Your task to perform on an android device: toggle pop-ups in chrome Image 0: 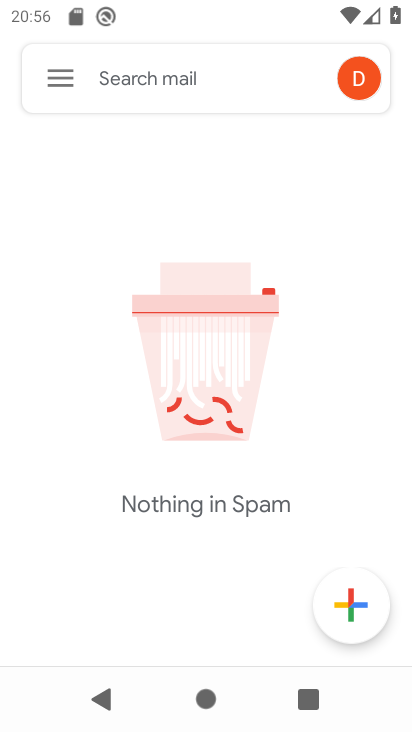
Step 0: drag from (239, 575) to (250, 191)
Your task to perform on an android device: toggle pop-ups in chrome Image 1: 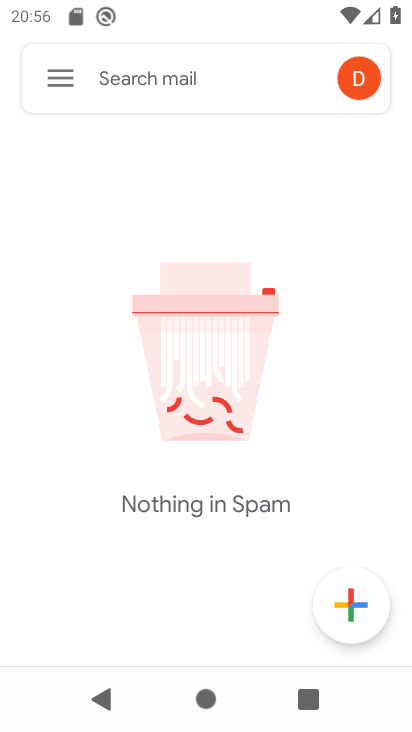
Step 1: press home button
Your task to perform on an android device: toggle pop-ups in chrome Image 2: 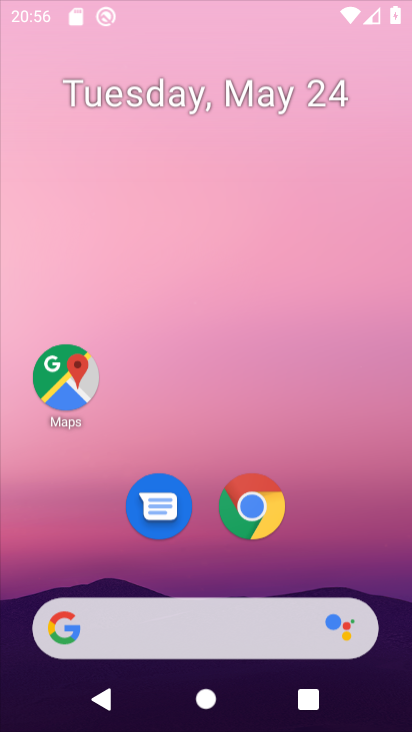
Step 2: drag from (190, 552) to (223, 228)
Your task to perform on an android device: toggle pop-ups in chrome Image 3: 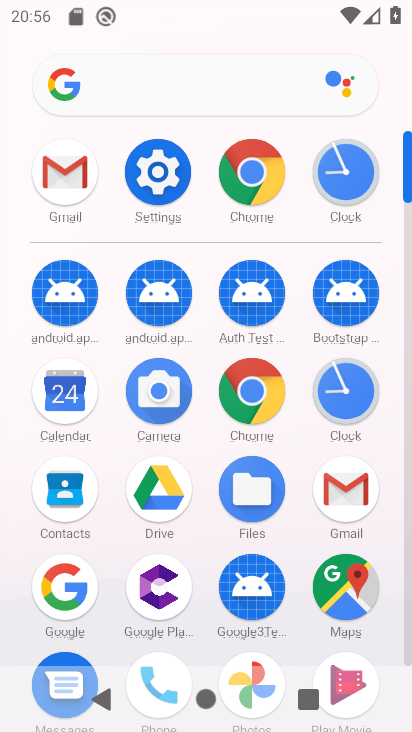
Step 3: click (244, 161)
Your task to perform on an android device: toggle pop-ups in chrome Image 4: 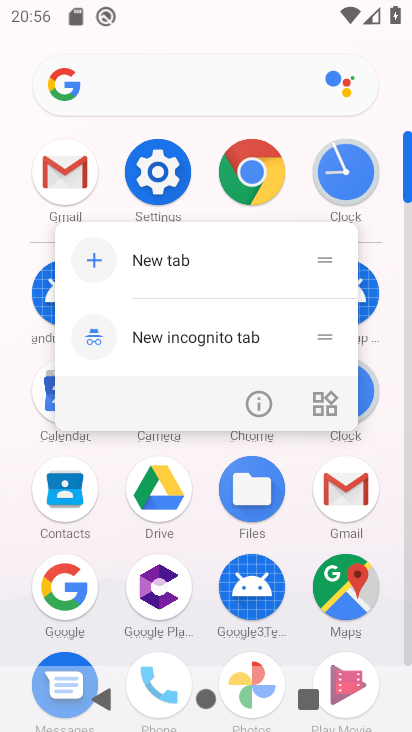
Step 4: click (261, 394)
Your task to perform on an android device: toggle pop-ups in chrome Image 5: 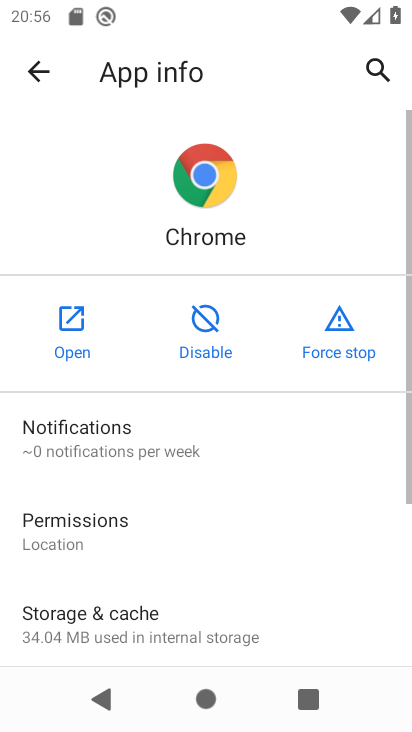
Step 5: click (83, 301)
Your task to perform on an android device: toggle pop-ups in chrome Image 6: 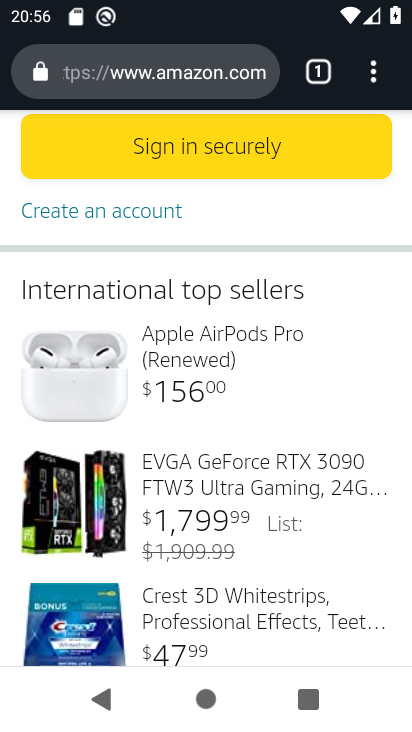
Step 6: drag from (246, 580) to (331, 164)
Your task to perform on an android device: toggle pop-ups in chrome Image 7: 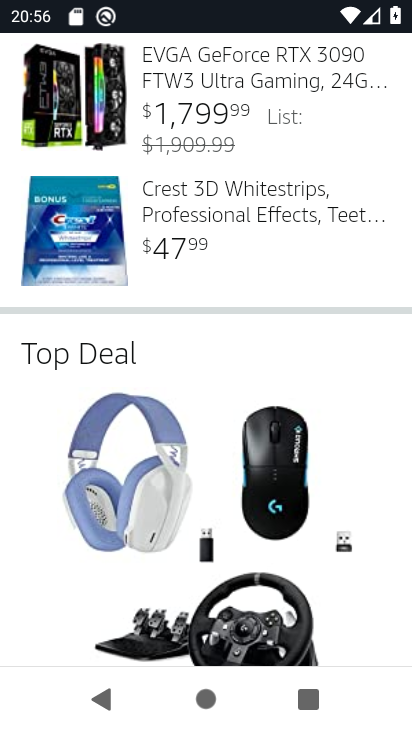
Step 7: drag from (281, 255) to (304, 726)
Your task to perform on an android device: toggle pop-ups in chrome Image 8: 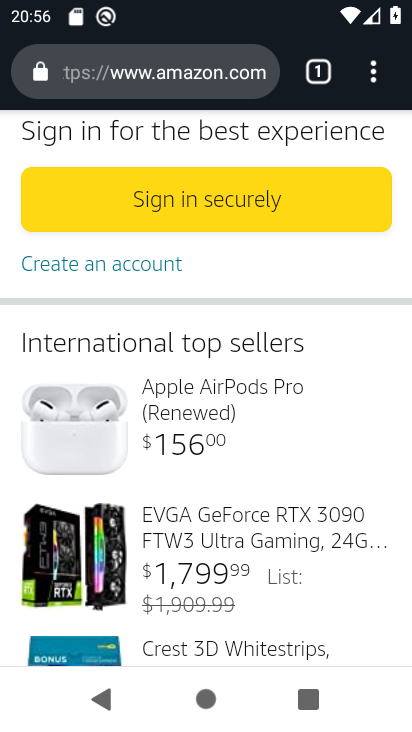
Step 8: click (378, 72)
Your task to perform on an android device: toggle pop-ups in chrome Image 9: 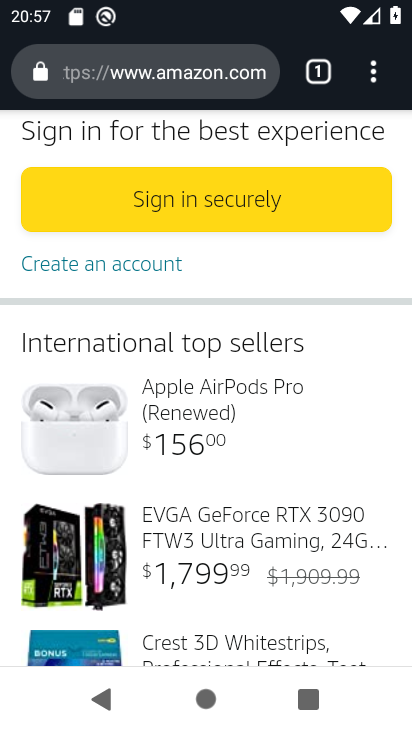
Step 9: click (371, 67)
Your task to perform on an android device: toggle pop-ups in chrome Image 10: 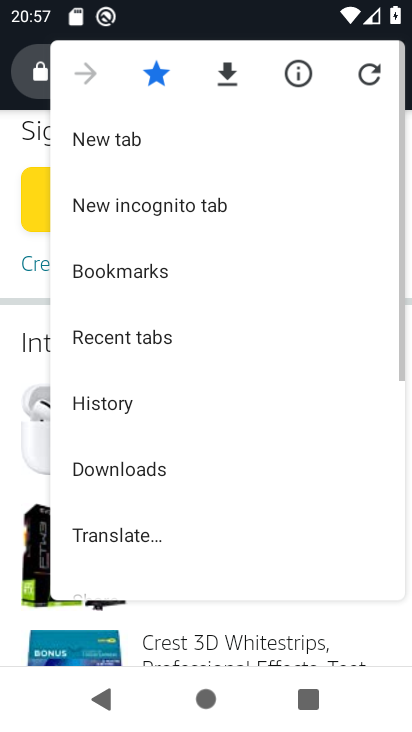
Step 10: drag from (129, 517) to (231, 142)
Your task to perform on an android device: toggle pop-ups in chrome Image 11: 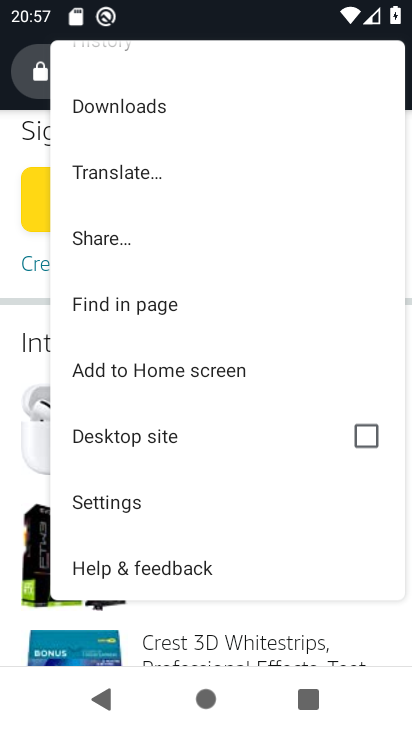
Step 11: click (142, 501)
Your task to perform on an android device: toggle pop-ups in chrome Image 12: 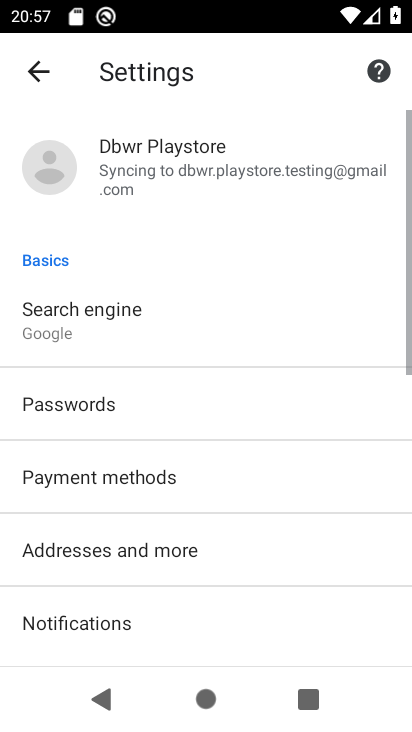
Step 12: drag from (183, 463) to (287, 143)
Your task to perform on an android device: toggle pop-ups in chrome Image 13: 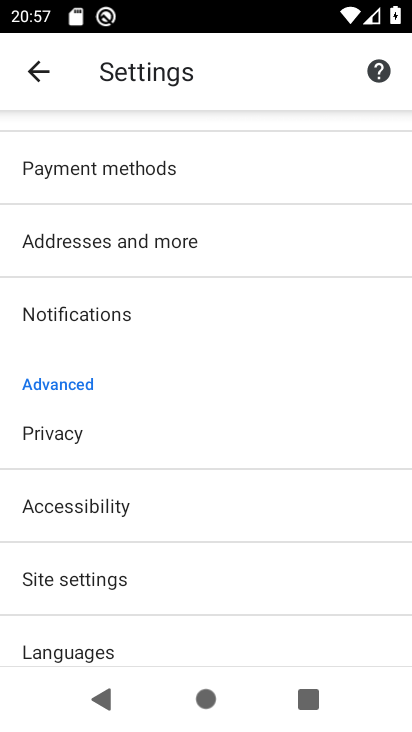
Step 13: click (120, 590)
Your task to perform on an android device: toggle pop-ups in chrome Image 14: 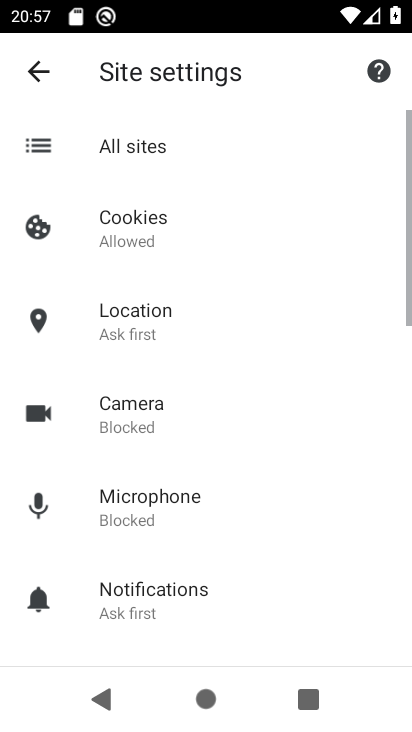
Step 14: drag from (188, 554) to (275, 273)
Your task to perform on an android device: toggle pop-ups in chrome Image 15: 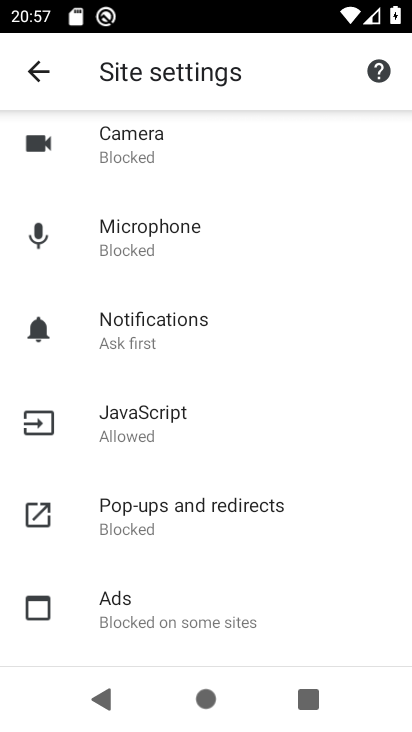
Step 15: click (202, 518)
Your task to perform on an android device: toggle pop-ups in chrome Image 16: 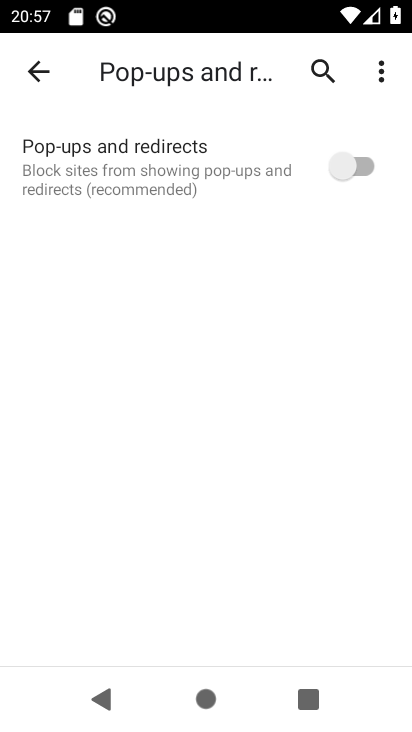
Step 16: click (349, 178)
Your task to perform on an android device: toggle pop-ups in chrome Image 17: 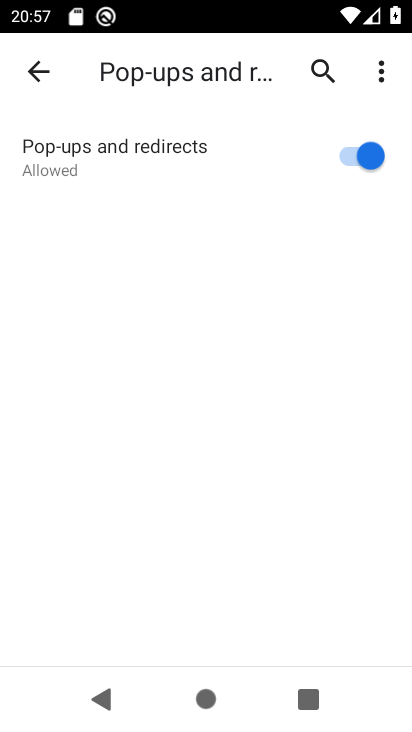
Step 17: task complete